Your task to perform on an android device: open app "WhatsApp Messenger" Image 0: 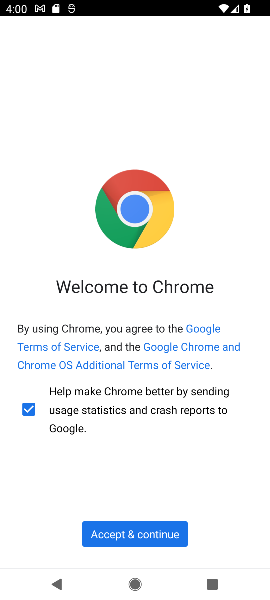
Step 0: press home button
Your task to perform on an android device: open app "WhatsApp Messenger" Image 1: 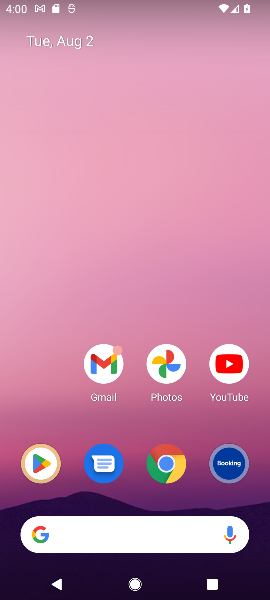
Step 1: click (45, 459)
Your task to perform on an android device: open app "WhatsApp Messenger" Image 2: 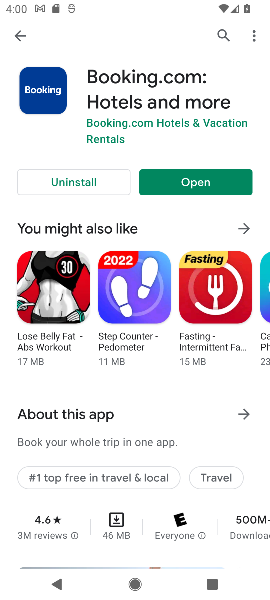
Step 2: click (223, 26)
Your task to perform on an android device: open app "WhatsApp Messenger" Image 3: 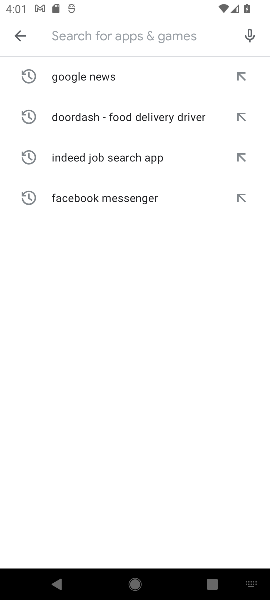
Step 3: type "WhatsApp Messenger"
Your task to perform on an android device: open app "WhatsApp Messenger" Image 4: 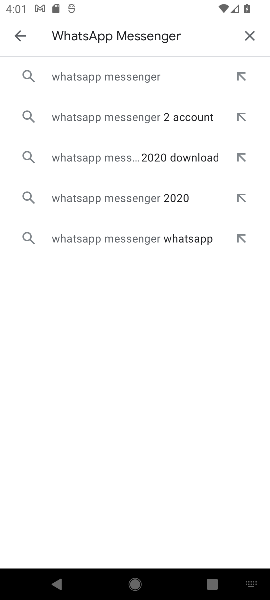
Step 4: click (143, 72)
Your task to perform on an android device: open app "WhatsApp Messenger" Image 5: 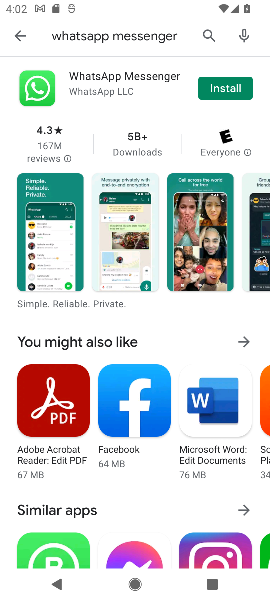
Step 5: task complete